Your task to perform on an android device: Go to CNN.com Image 0: 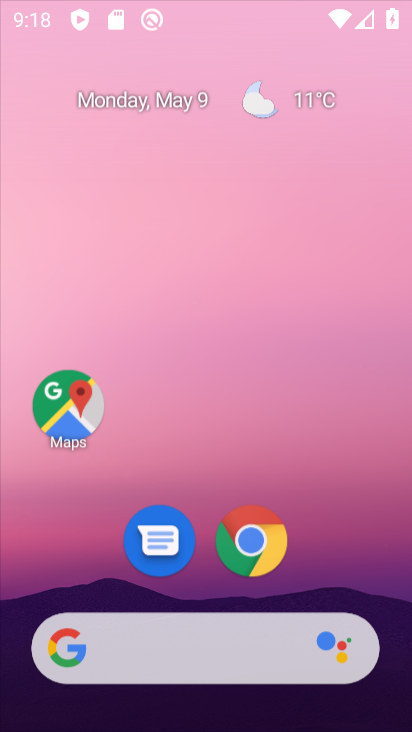
Step 0: press home button
Your task to perform on an android device: Go to CNN.com Image 1: 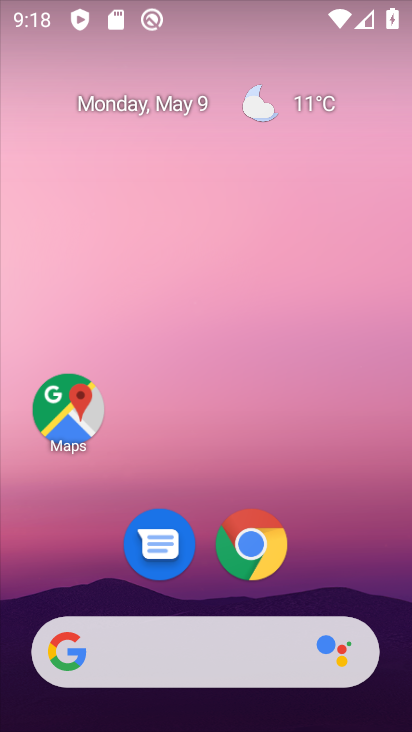
Step 1: click (253, 526)
Your task to perform on an android device: Go to CNN.com Image 2: 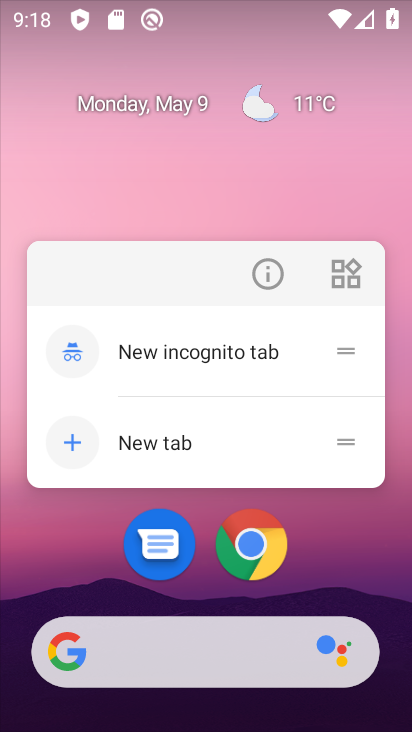
Step 2: click (253, 544)
Your task to perform on an android device: Go to CNN.com Image 3: 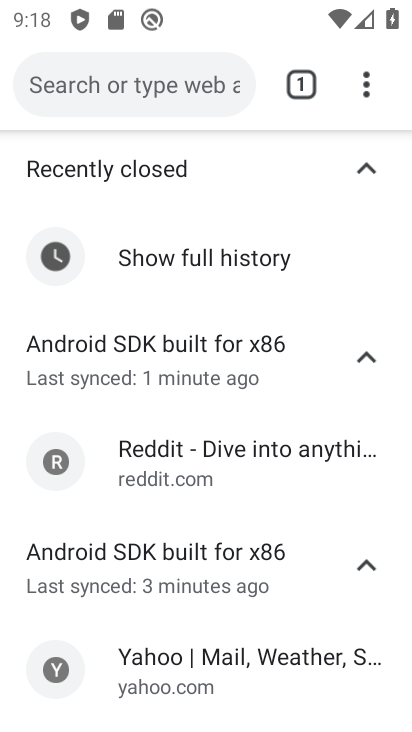
Step 3: click (159, 84)
Your task to perform on an android device: Go to CNN.com Image 4: 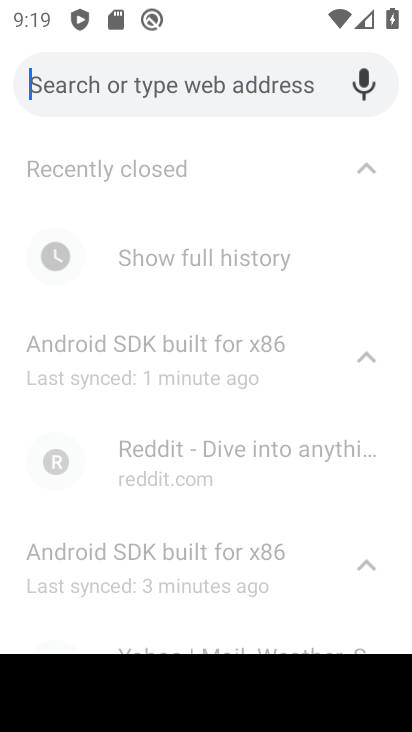
Step 4: type "CNN.com"
Your task to perform on an android device: Go to CNN.com Image 5: 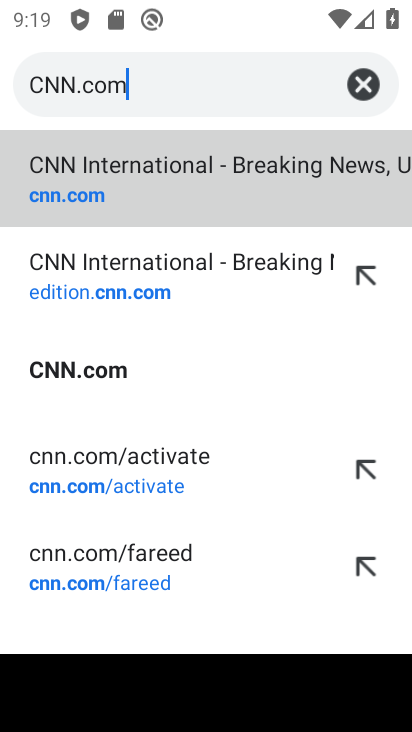
Step 5: click (77, 375)
Your task to perform on an android device: Go to CNN.com Image 6: 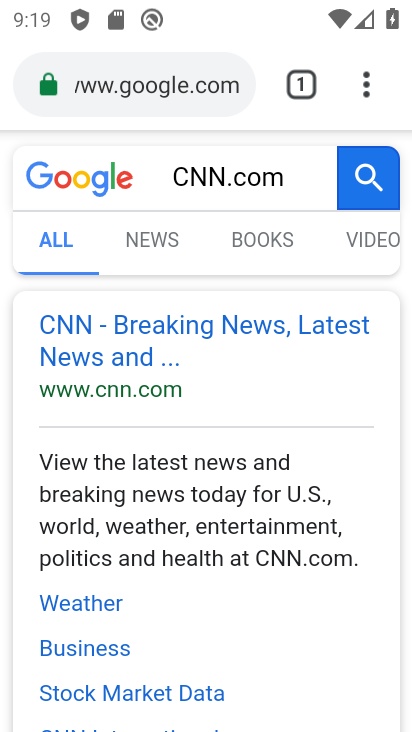
Step 6: task complete